Your task to perform on an android device: add a contact in the contacts app Image 0: 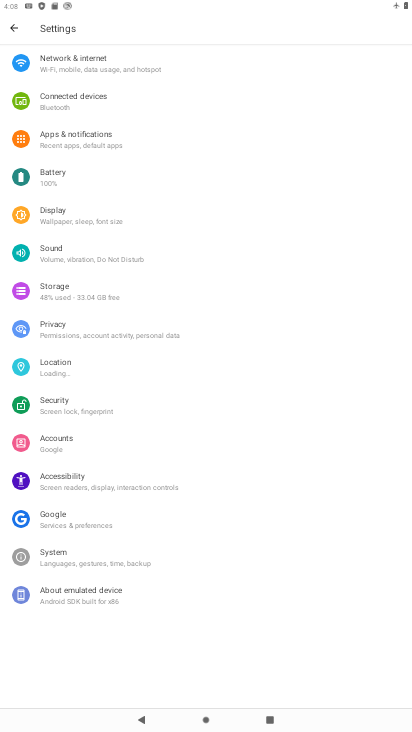
Step 0: press home button
Your task to perform on an android device: add a contact in the contacts app Image 1: 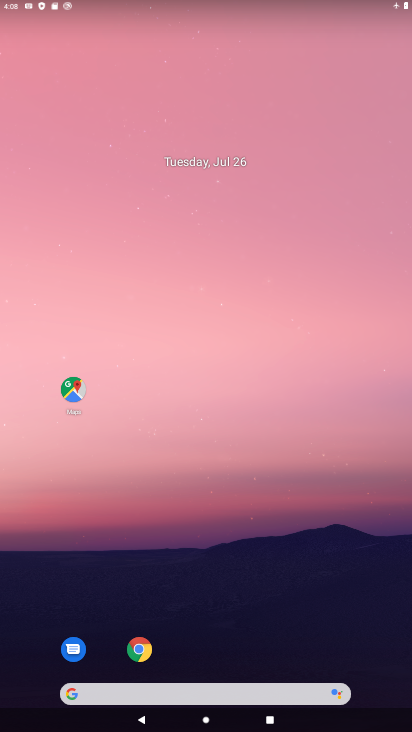
Step 1: drag from (208, 632) to (228, 290)
Your task to perform on an android device: add a contact in the contacts app Image 2: 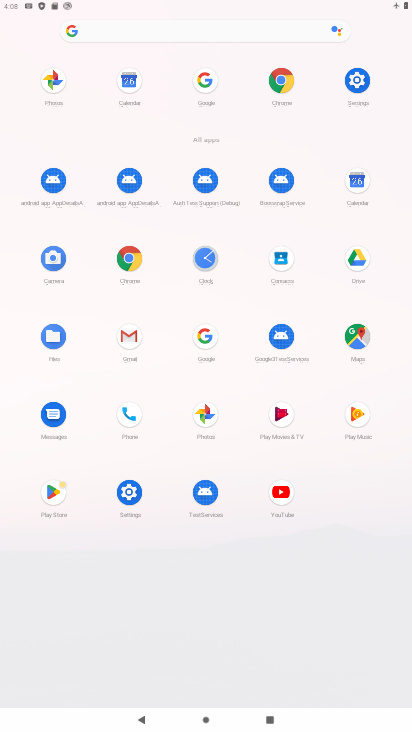
Step 2: click (277, 267)
Your task to perform on an android device: add a contact in the contacts app Image 3: 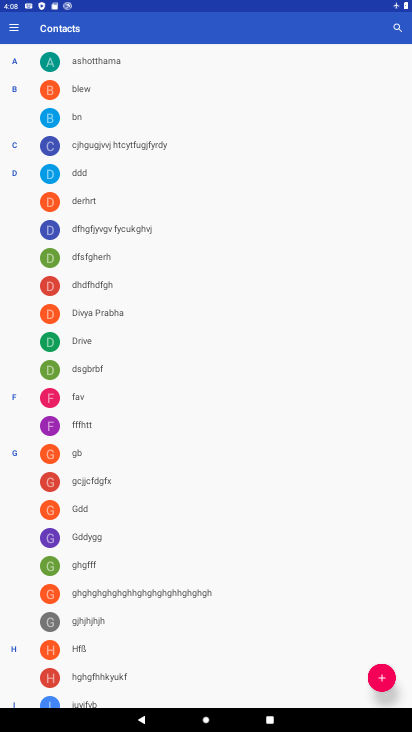
Step 3: click (385, 672)
Your task to perform on an android device: add a contact in the contacts app Image 4: 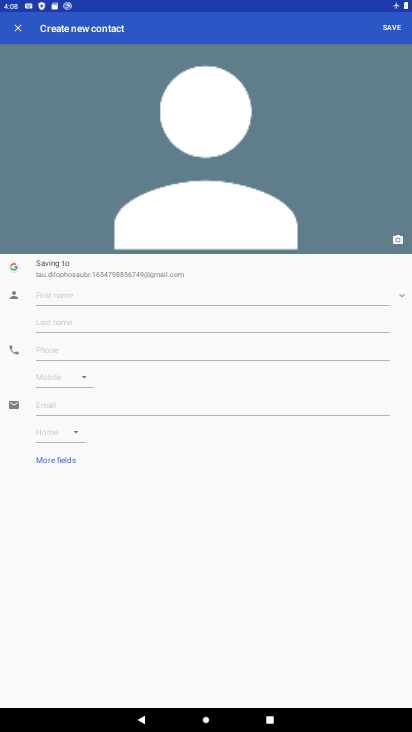
Step 4: click (80, 299)
Your task to perform on an android device: add a contact in the contacts app Image 5: 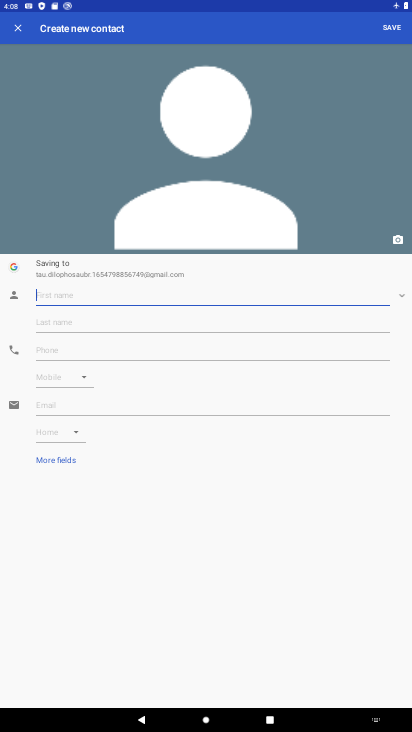
Step 5: type "fgfgh"
Your task to perform on an android device: add a contact in the contacts app Image 6: 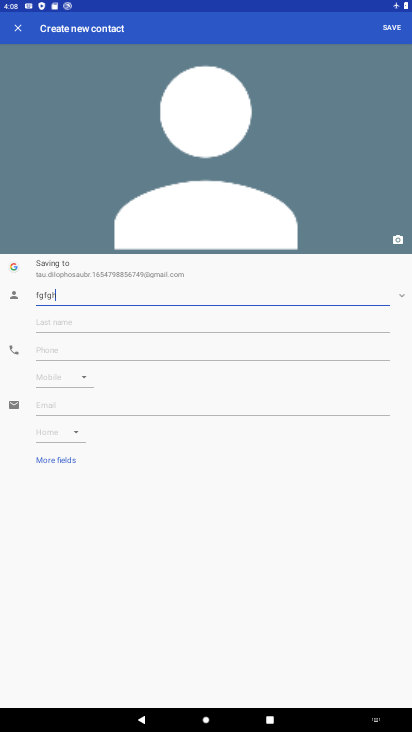
Step 6: click (96, 356)
Your task to perform on an android device: add a contact in the contacts app Image 7: 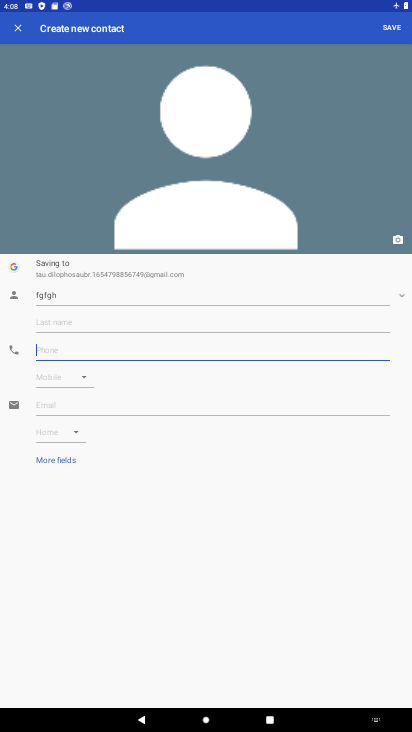
Step 7: type "8568657564546"
Your task to perform on an android device: add a contact in the contacts app Image 8: 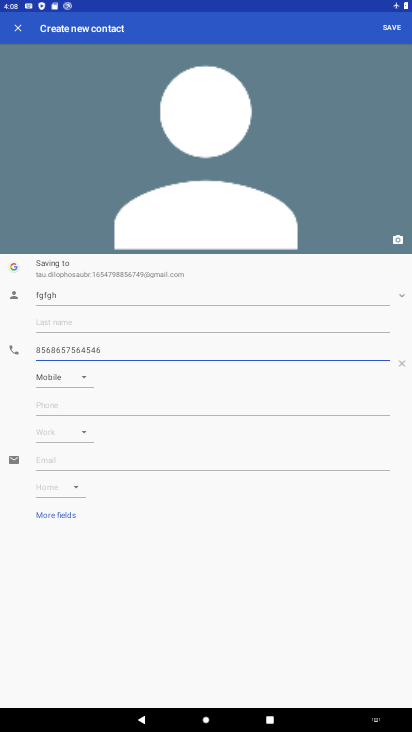
Step 8: click (397, 25)
Your task to perform on an android device: add a contact in the contacts app Image 9: 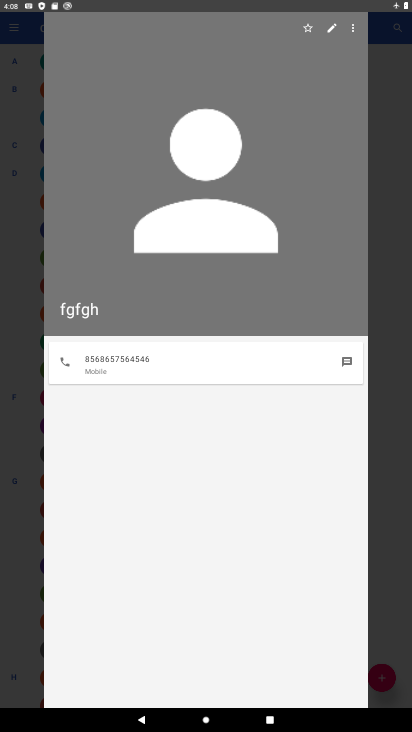
Step 9: task complete